Your task to perform on an android device: Open settings Image 0: 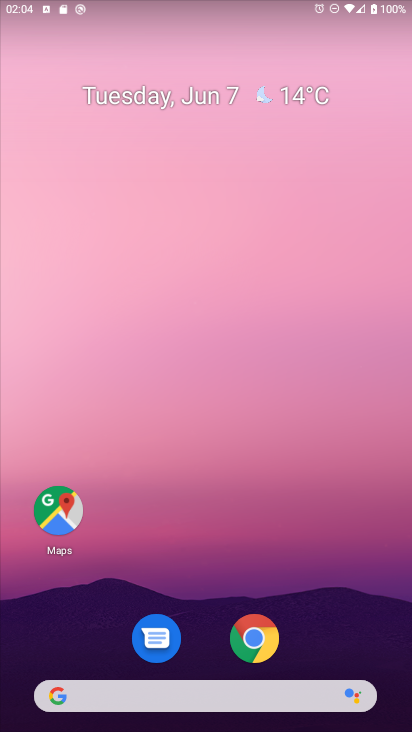
Step 0: drag from (255, 730) to (238, 79)
Your task to perform on an android device: Open settings Image 1: 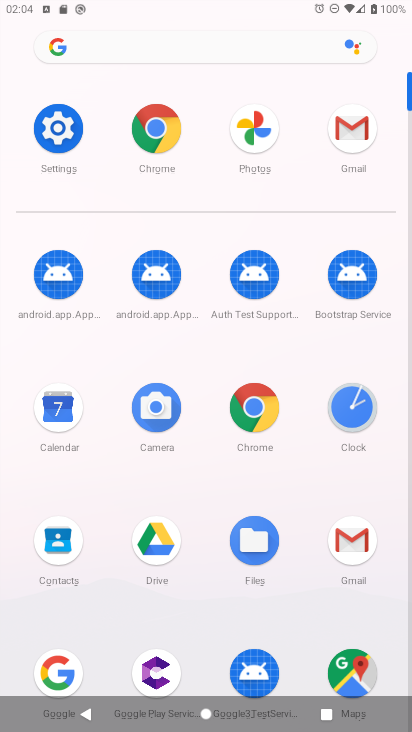
Step 1: click (62, 128)
Your task to perform on an android device: Open settings Image 2: 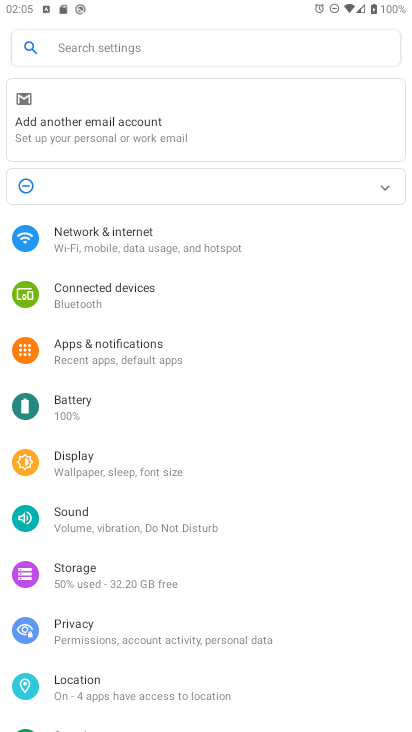
Step 2: task complete